Your task to perform on an android device: open app "DuckDuckGo Privacy Browser" (install if not already installed) Image 0: 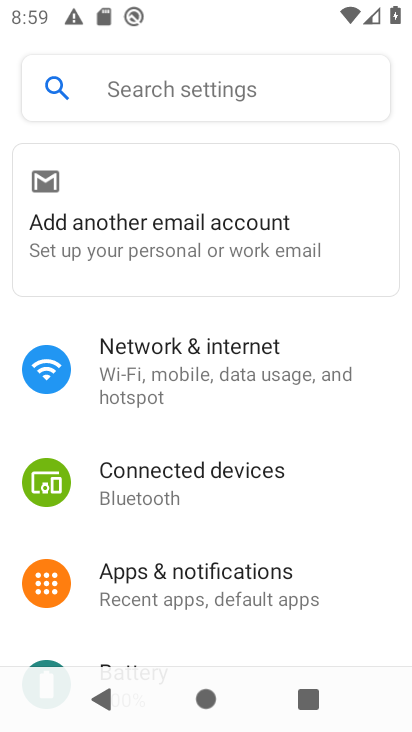
Step 0: press home button
Your task to perform on an android device: open app "DuckDuckGo Privacy Browser" (install if not already installed) Image 1: 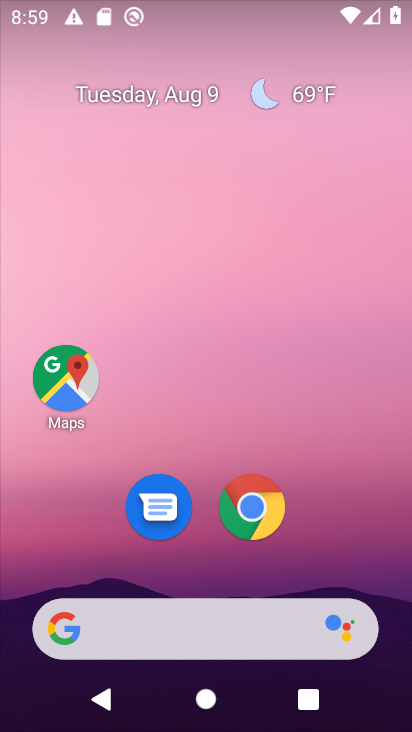
Step 1: drag from (186, 646) to (254, 163)
Your task to perform on an android device: open app "DuckDuckGo Privacy Browser" (install if not already installed) Image 2: 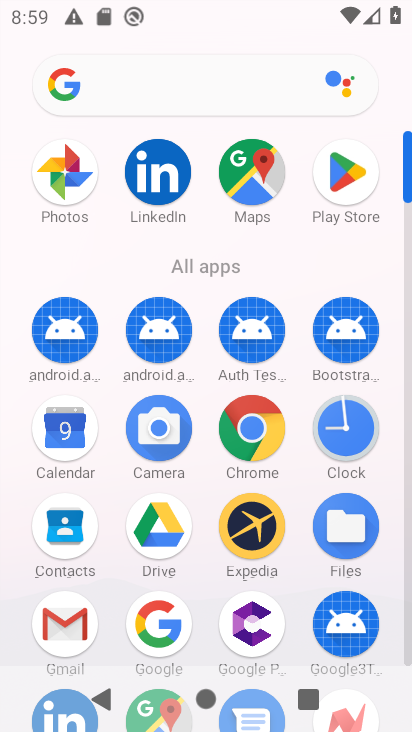
Step 2: click (354, 173)
Your task to perform on an android device: open app "DuckDuckGo Privacy Browser" (install if not already installed) Image 3: 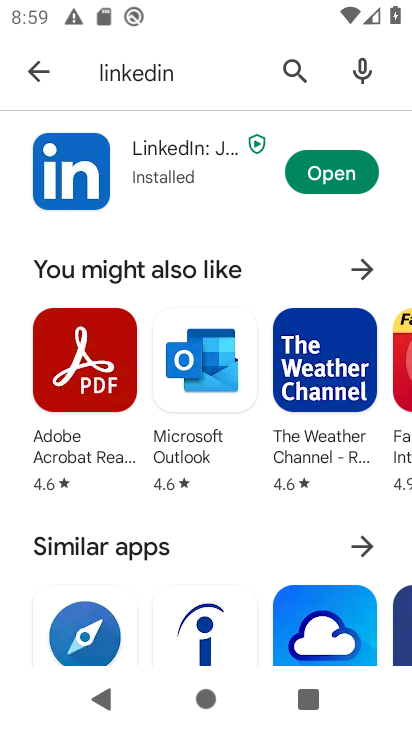
Step 3: click (295, 64)
Your task to perform on an android device: open app "DuckDuckGo Privacy Browser" (install if not already installed) Image 4: 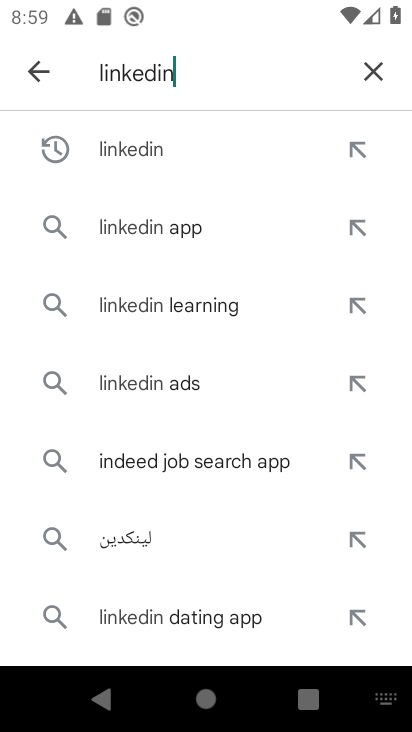
Step 4: click (371, 68)
Your task to perform on an android device: open app "DuckDuckGo Privacy Browser" (install if not already installed) Image 5: 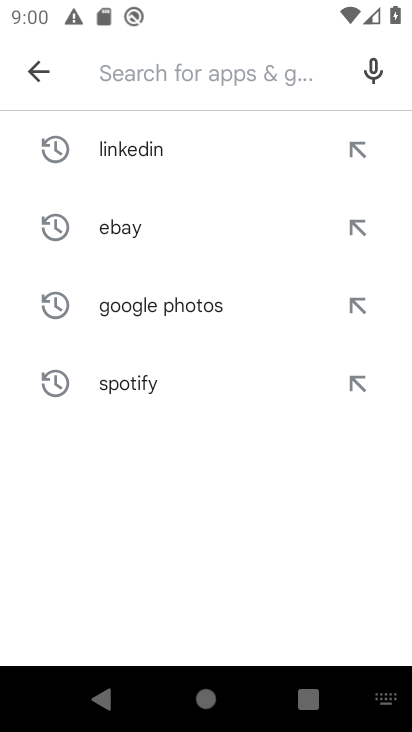
Step 5: type "DuckDuckGo  Privacy Browser"
Your task to perform on an android device: open app "DuckDuckGo Privacy Browser" (install if not already installed) Image 6: 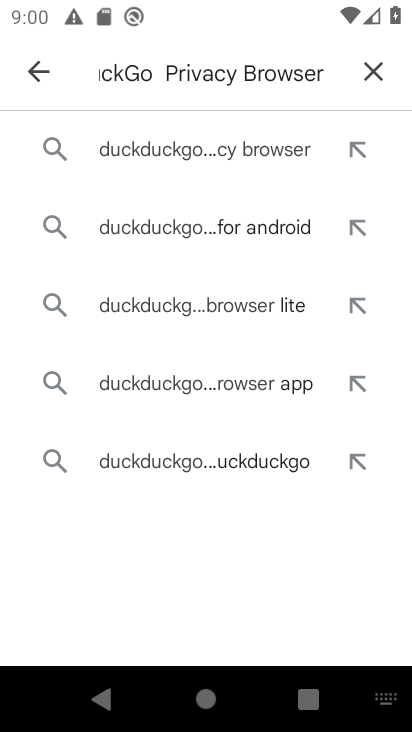
Step 6: click (221, 160)
Your task to perform on an android device: open app "DuckDuckGo Privacy Browser" (install if not already installed) Image 7: 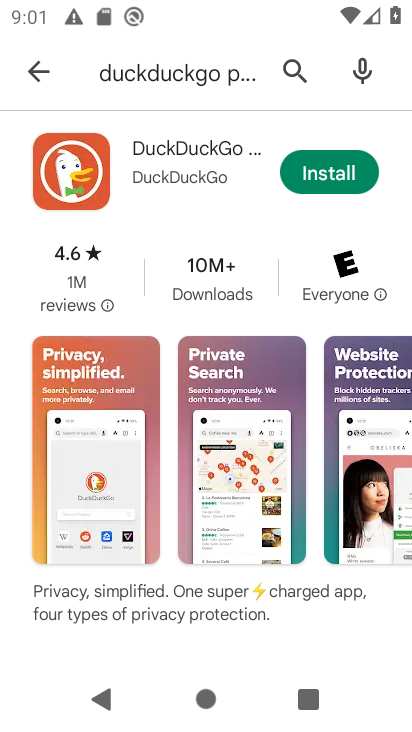
Step 7: click (315, 183)
Your task to perform on an android device: open app "DuckDuckGo Privacy Browser" (install if not already installed) Image 8: 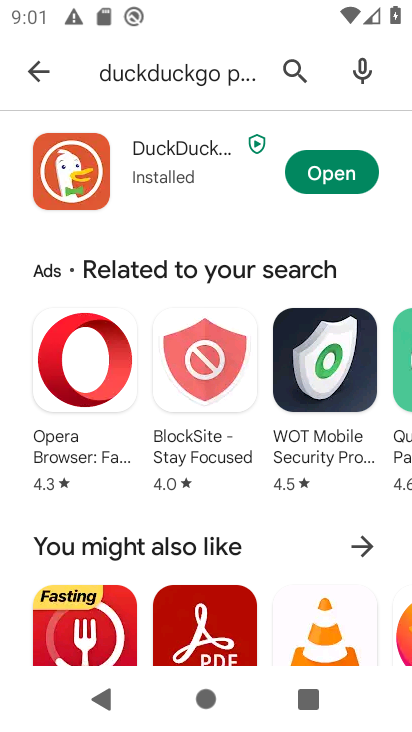
Step 8: click (315, 171)
Your task to perform on an android device: open app "DuckDuckGo Privacy Browser" (install if not already installed) Image 9: 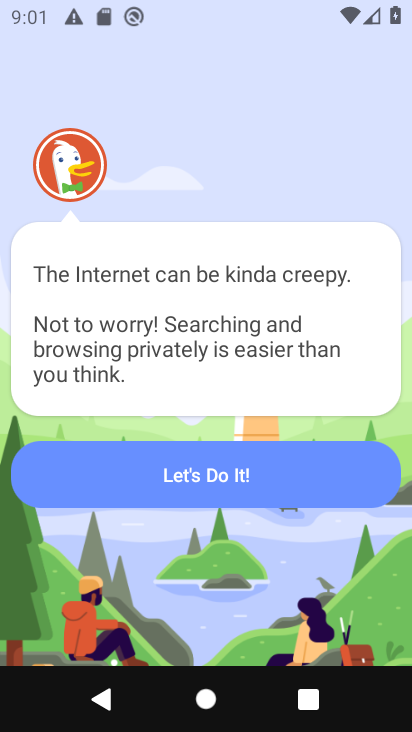
Step 9: click (178, 479)
Your task to perform on an android device: open app "DuckDuckGo Privacy Browser" (install if not already installed) Image 10: 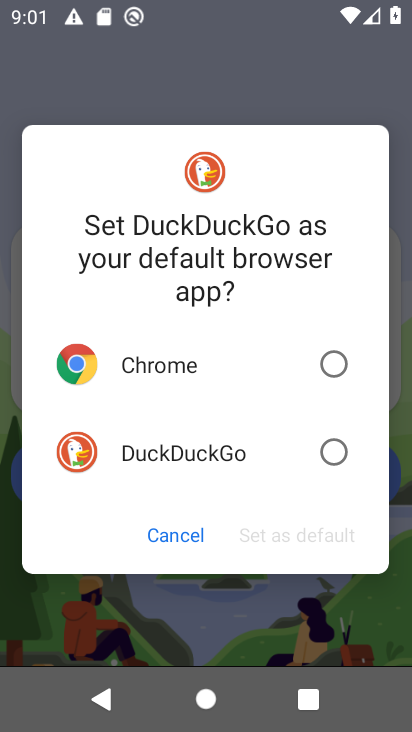
Step 10: click (320, 456)
Your task to perform on an android device: open app "DuckDuckGo Privacy Browser" (install if not already installed) Image 11: 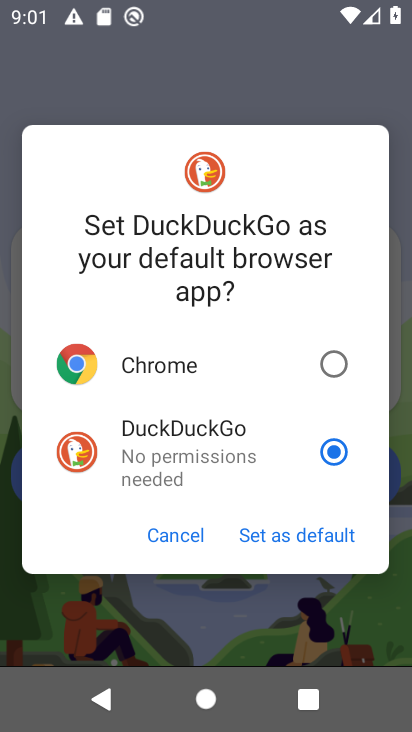
Step 11: click (320, 530)
Your task to perform on an android device: open app "DuckDuckGo Privacy Browser" (install if not already installed) Image 12: 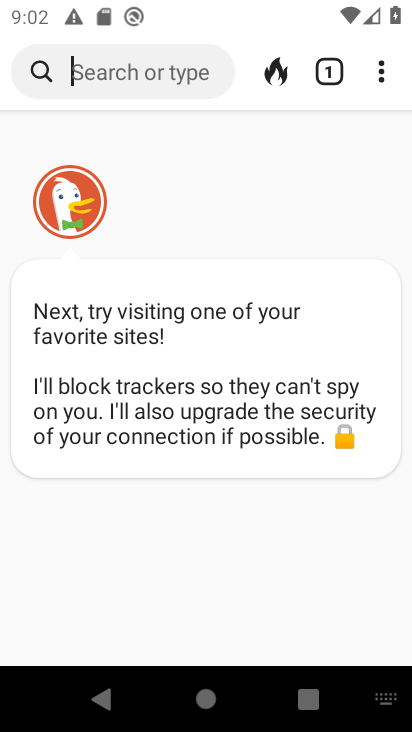
Step 12: task complete